Your task to perform on an android device: Search for hotels in NYC Image 0: 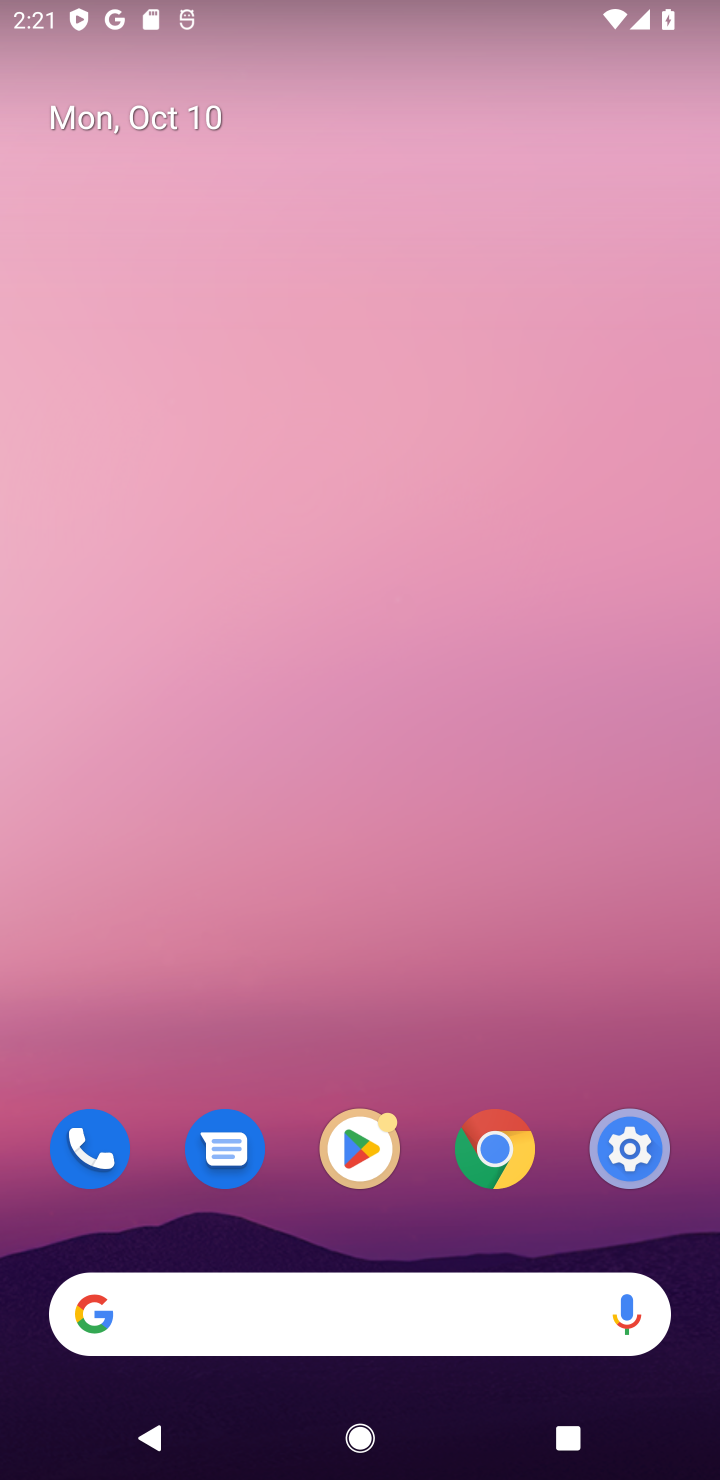
Step 0: click (408, 1321)
Your task to perform on an android device: Search for hotels in NYC Image 1: 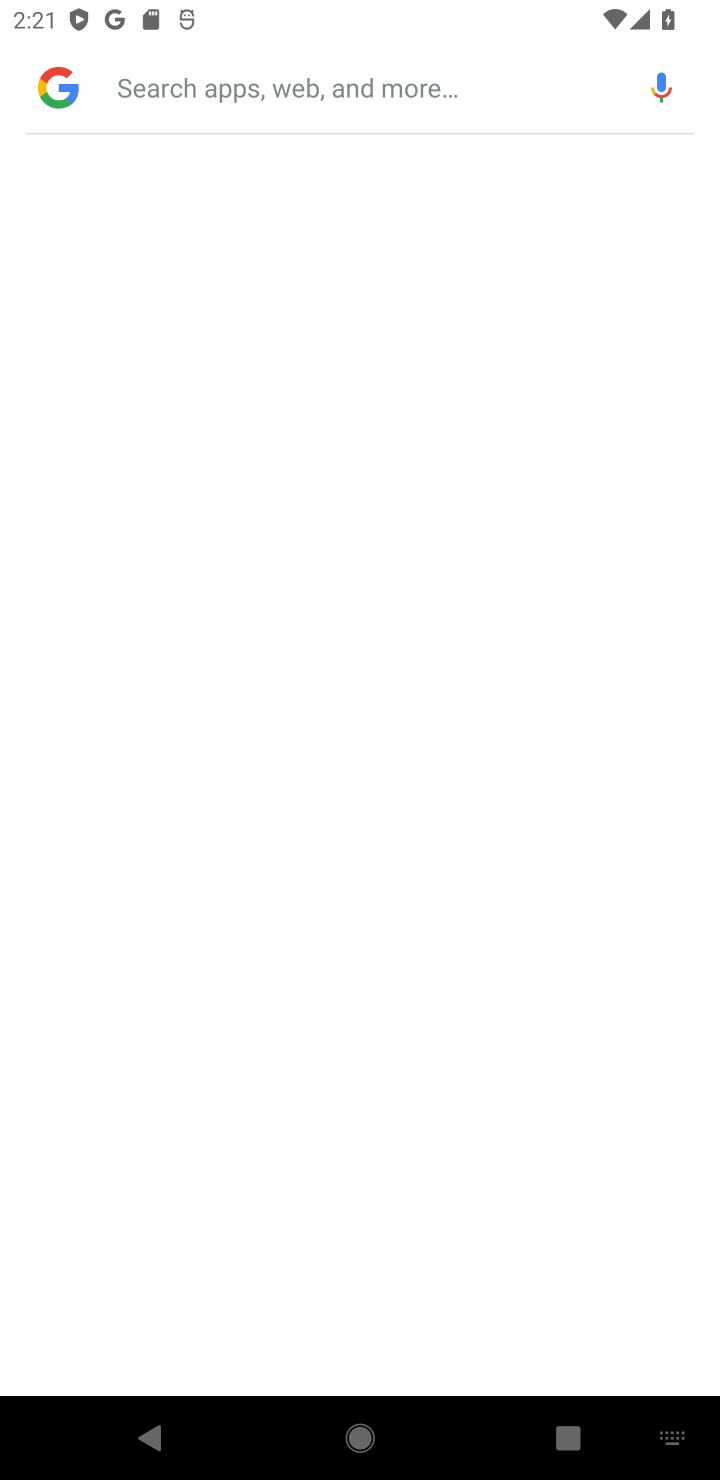
Step 1: type " hotels in NYC"
Your task to perform on an android device: Search for hotels in NYC Image 2: 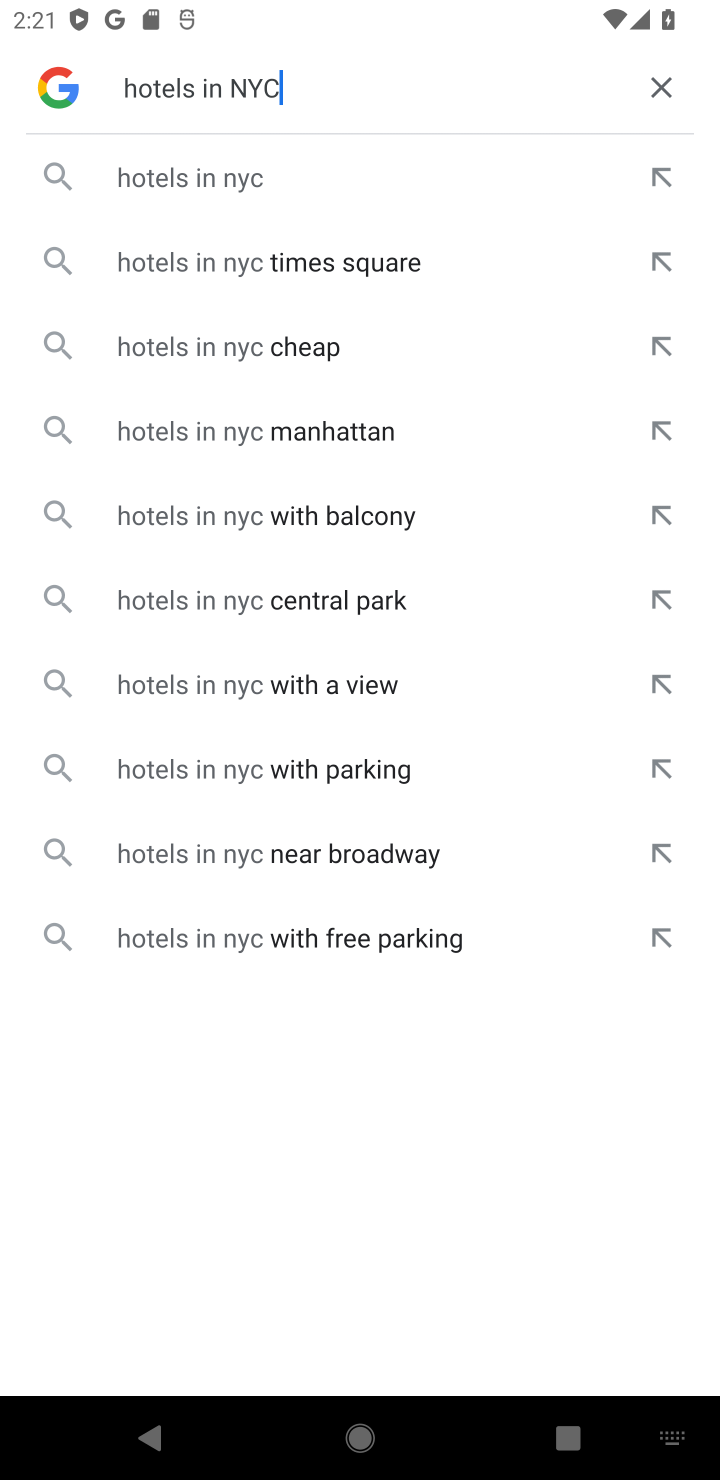
Step 2: click (368, 179)
Your task to perform on an android device: Search for hotels in NYC Image 3: 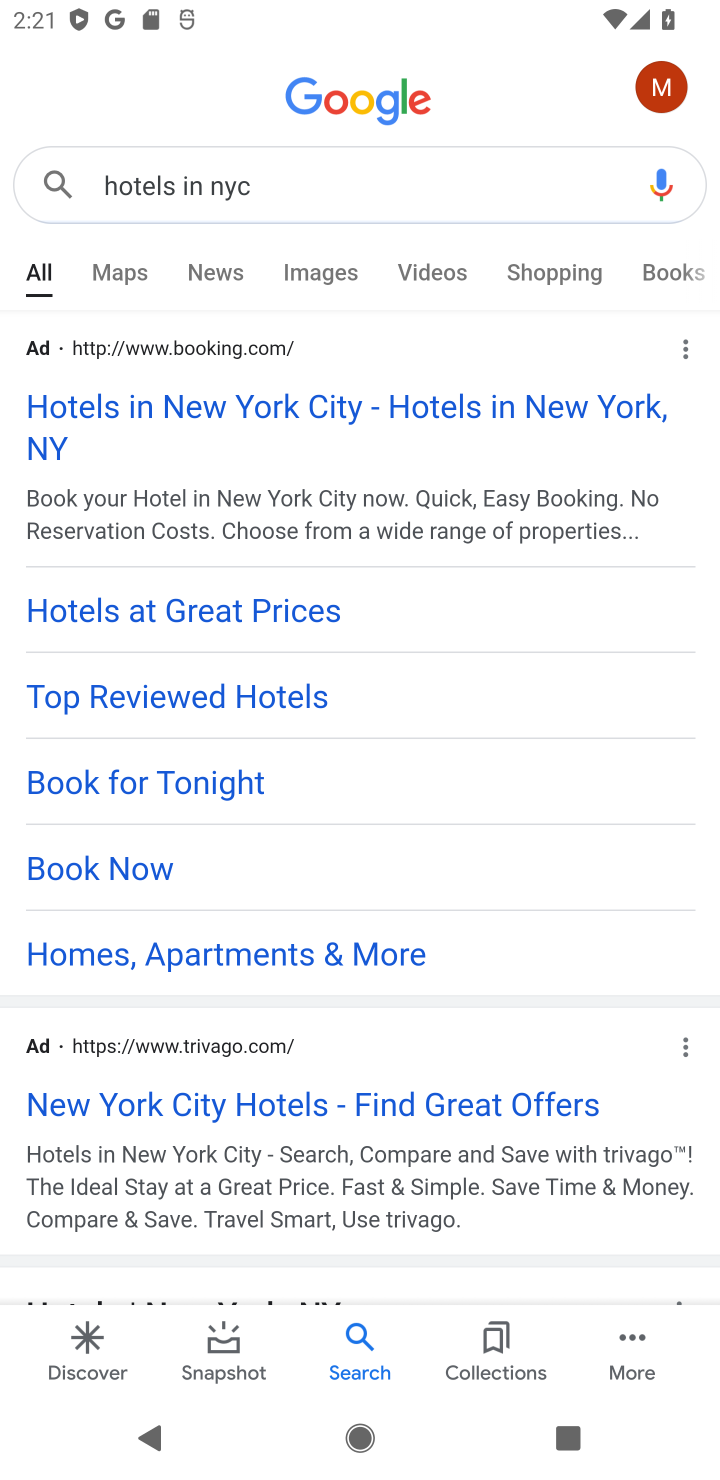
Step 3: task complete